Your task to perform on an android device: Search for a new foundation (skincare) product Image 0: 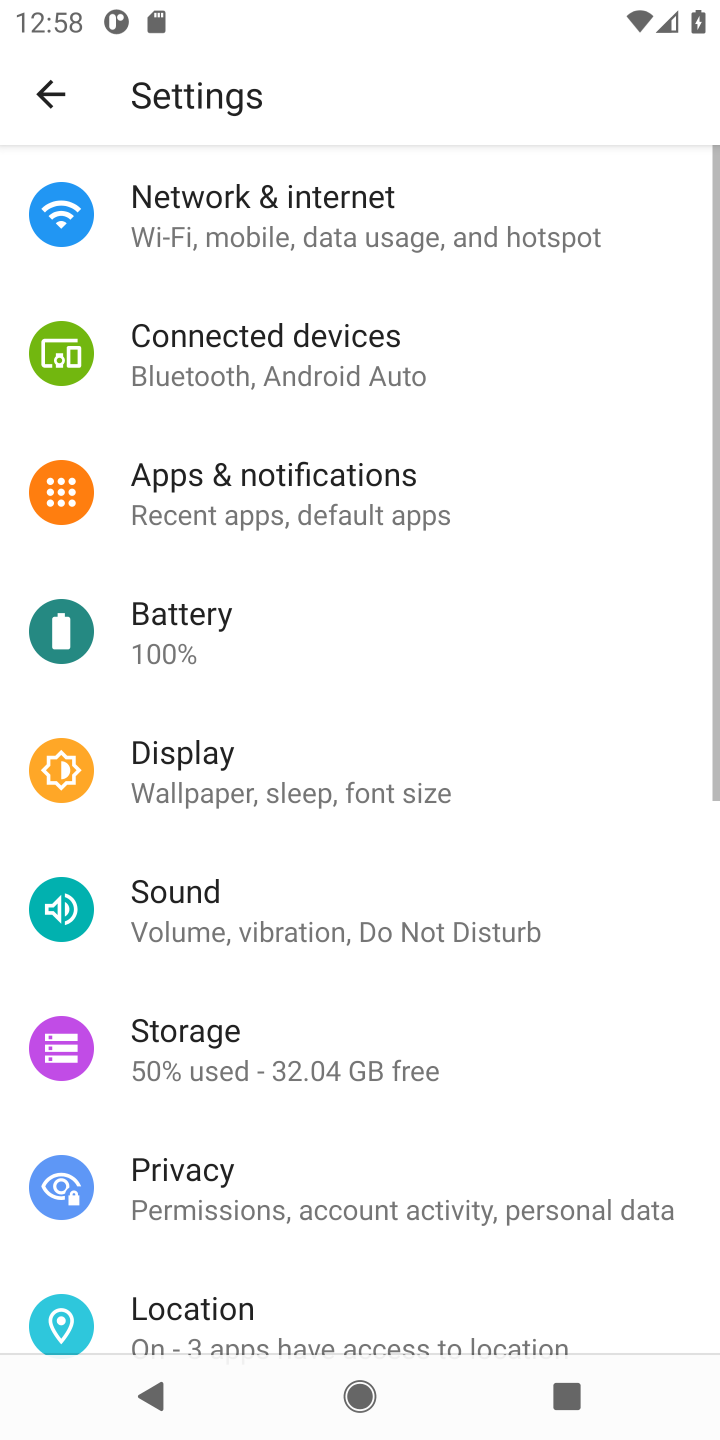
Step 0: press home button
Your task to perform on an android device: Search for a new foundation (skincare) product Image 1: 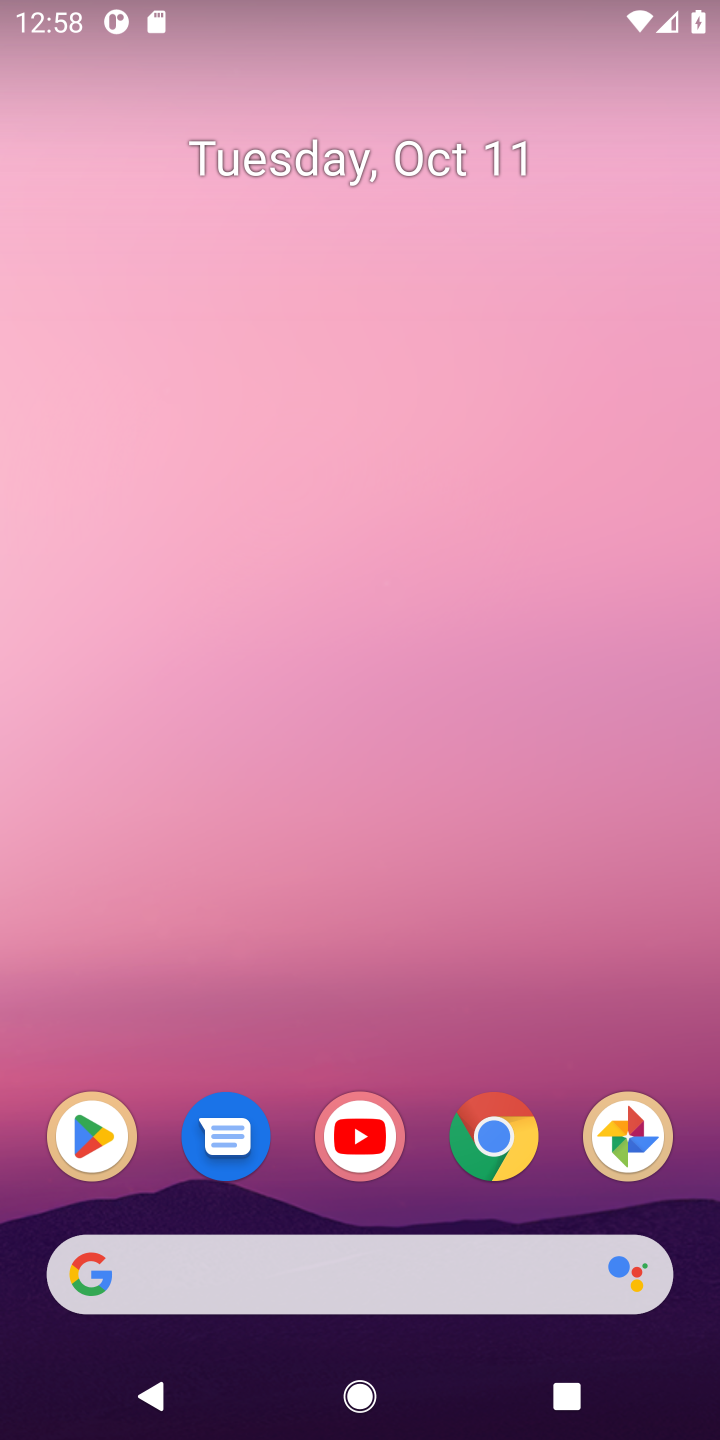
Step 1: click (322, 1258)
Your task to perform on an android device: Search for a new foundation (skincare) product Image 2: 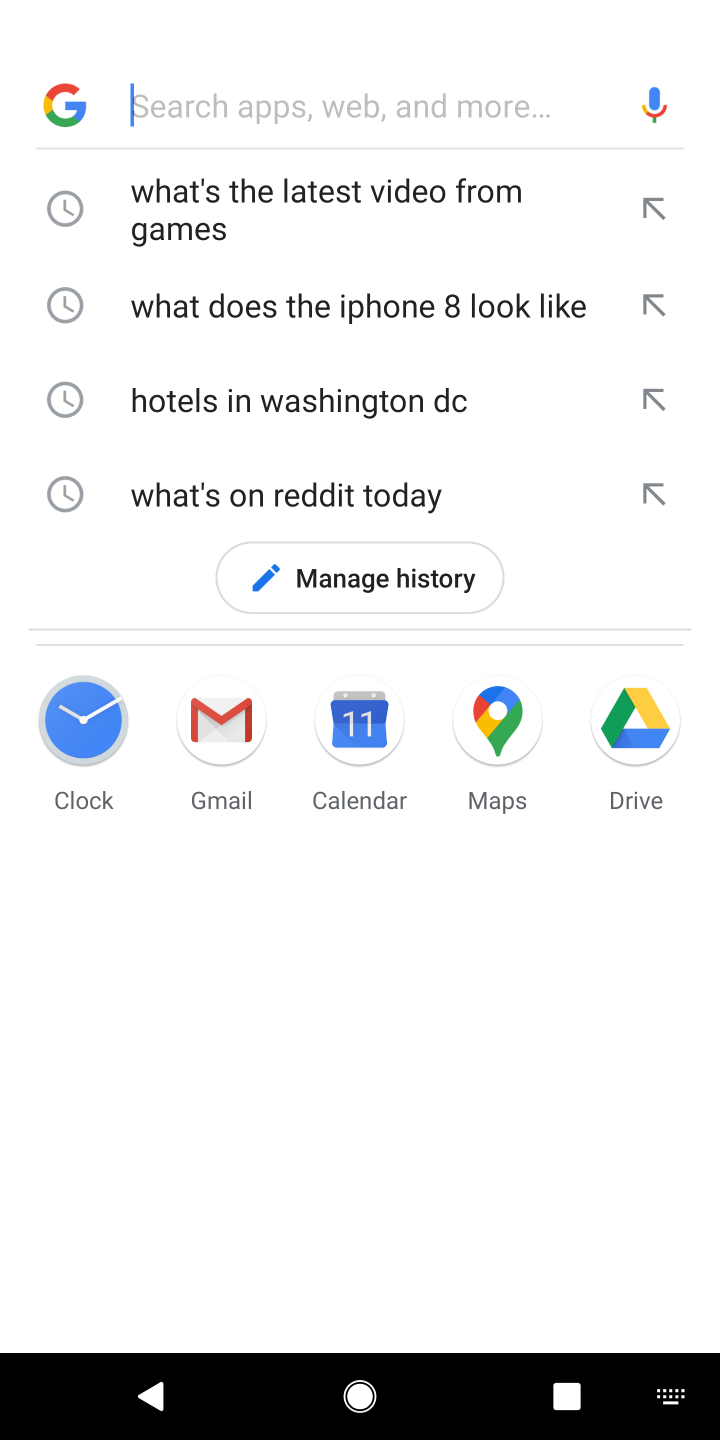
Step 2: type "new foundation (skincare) product"
Your task to perform on an android device: Search for a new foundation (skincare) product Image 3: 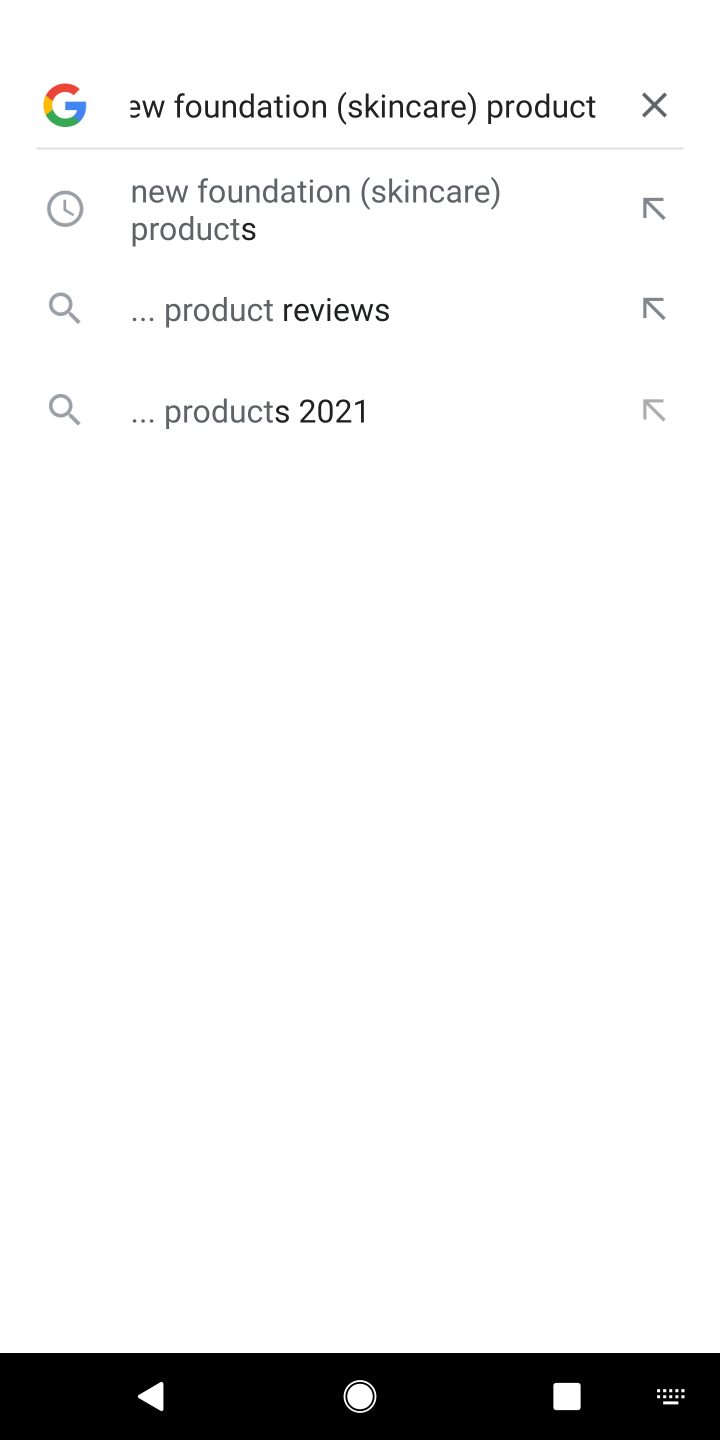
Step 3: press enter
Your task to perform on an android device: Search for a new foundation (skincare) product Image 4: 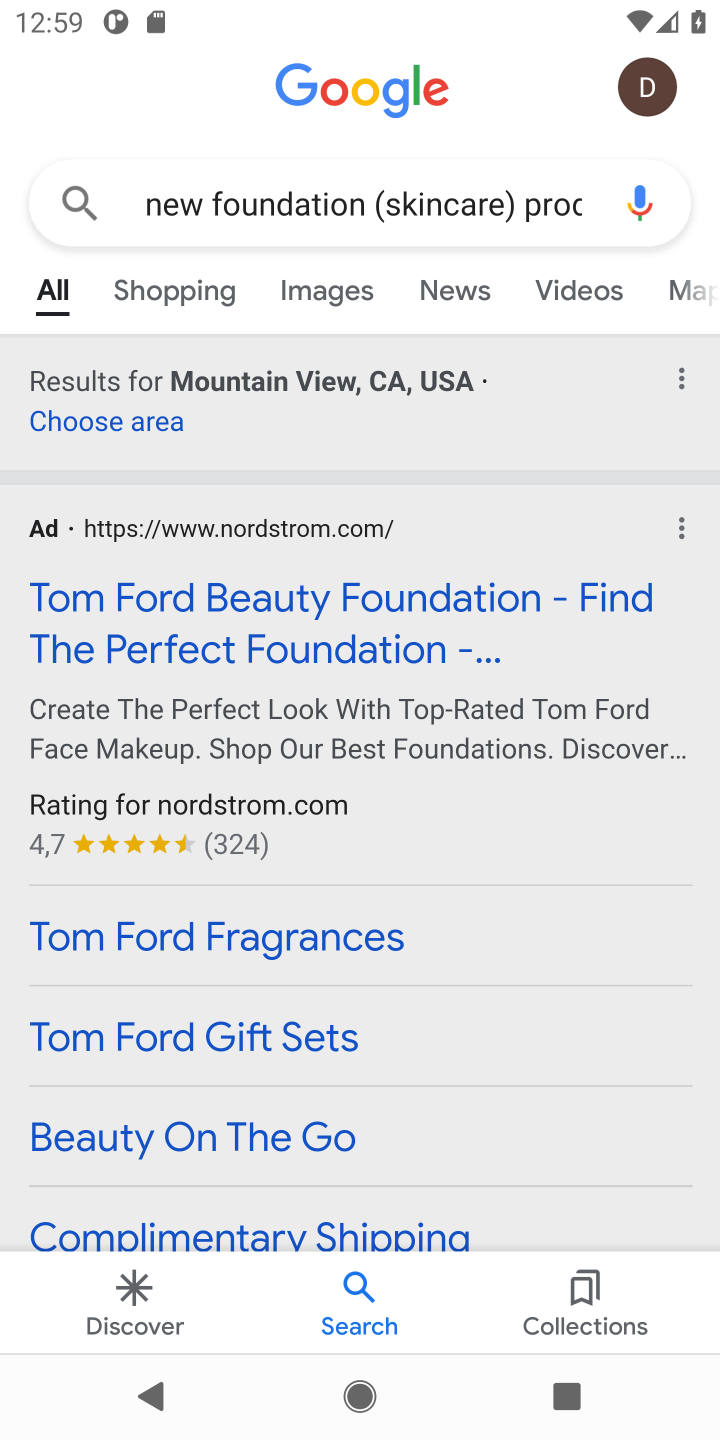
Step 4: click (314, 633)
Your task to perform on an android device: Search for a new foundation (skincare) product Image 5: 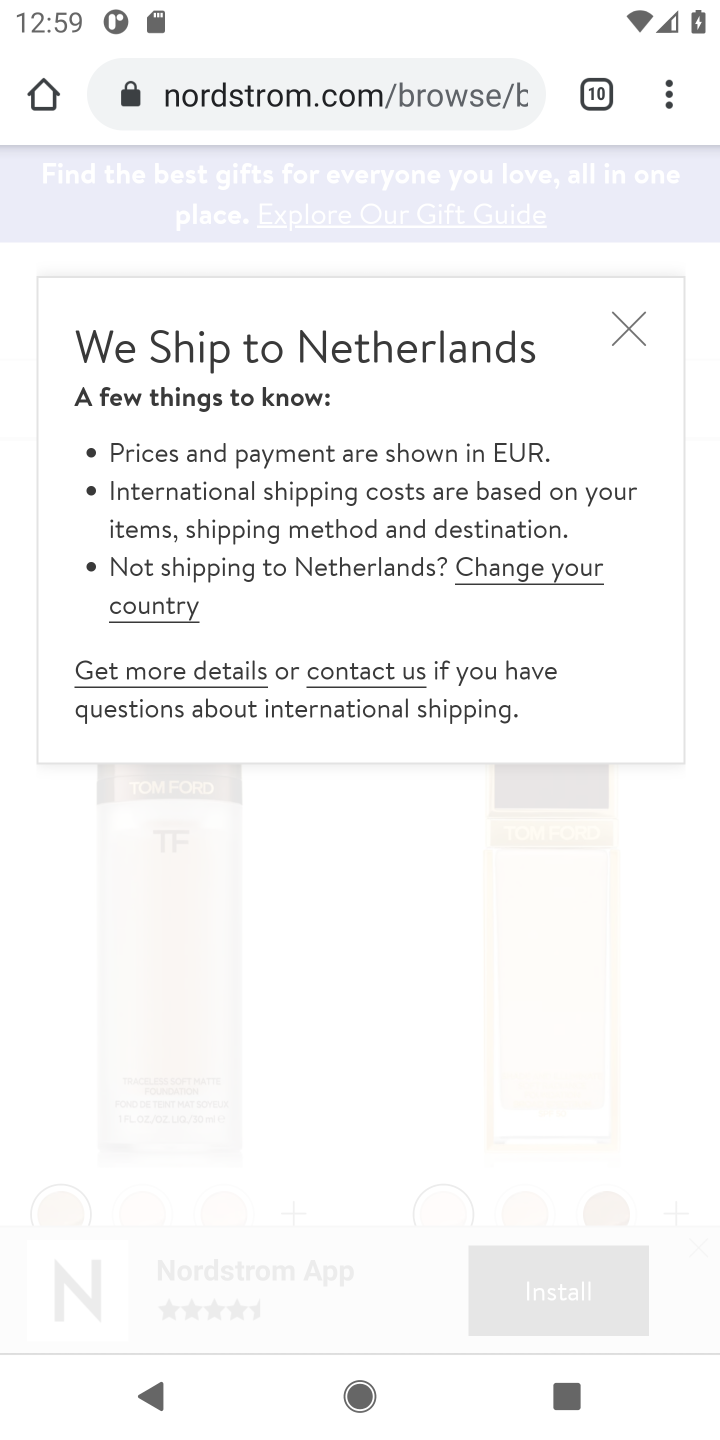
Step 5: click (635, 330)
Your task to perform on an android device: Search for a new foundation (skincare) product Image 6: 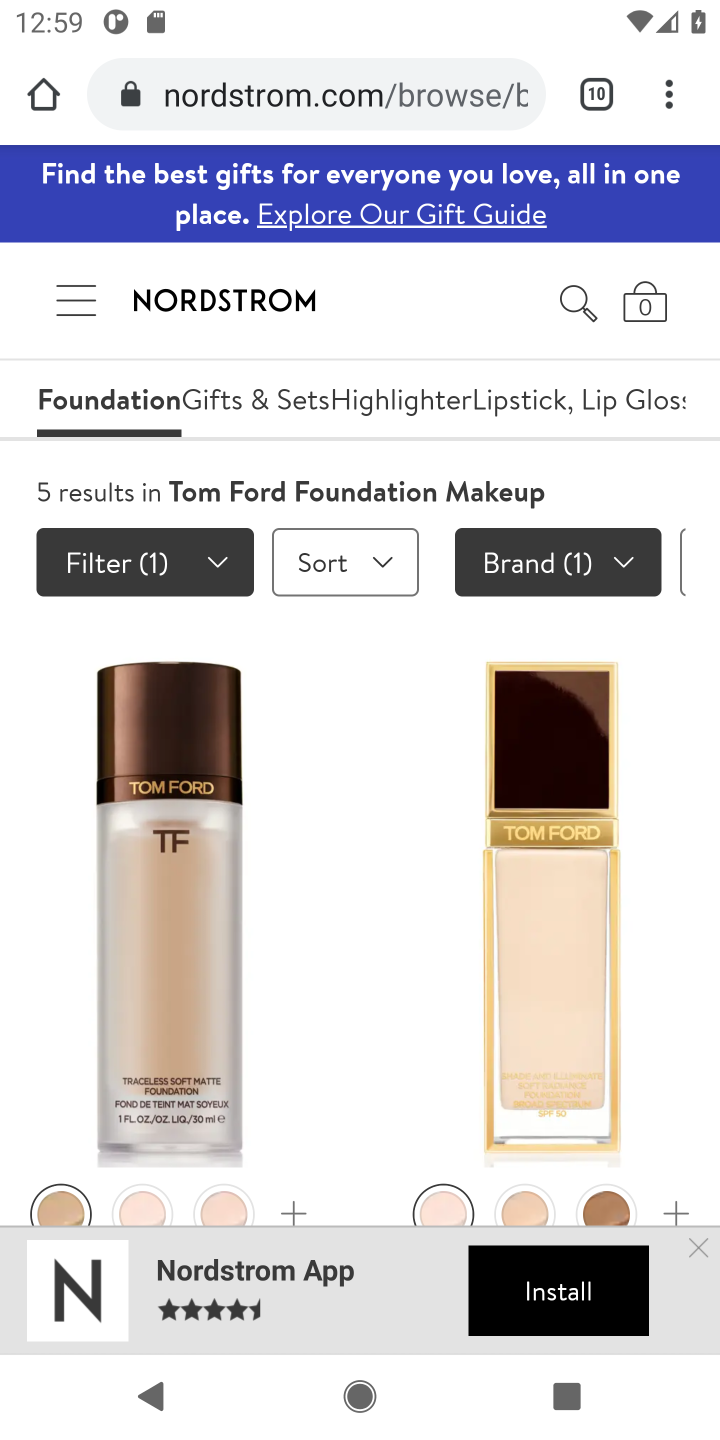
Step 6: task complete